Your task to perform on an android device: Check the news Image 0: 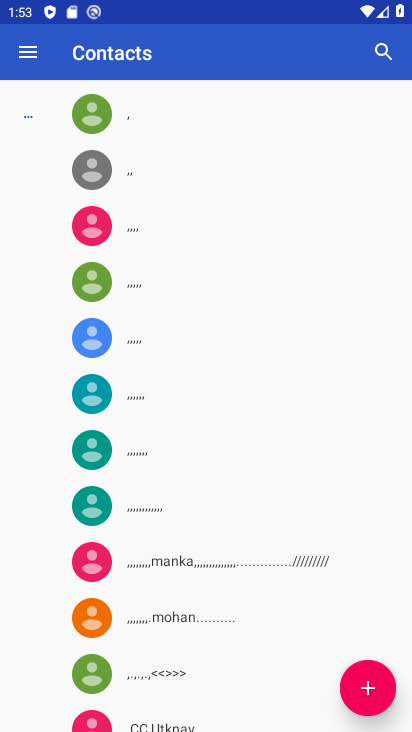
Step 0: press home button
Your task to perform on an android device: Check the news Image 1: 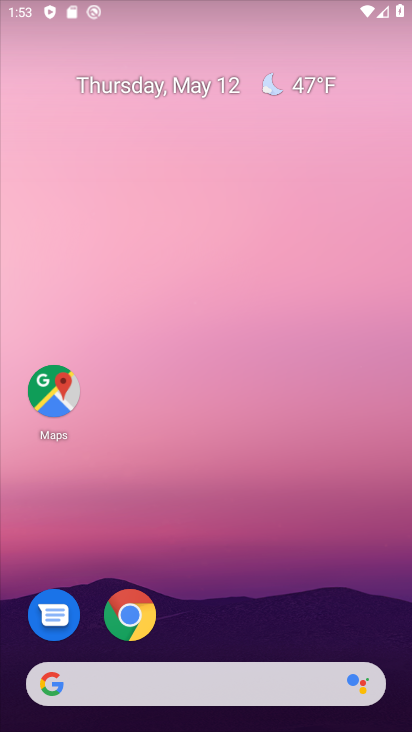
Step 1: drag from (217, 621) to (219, 89)
Your task to perform on an android device: Check the news Image 2: 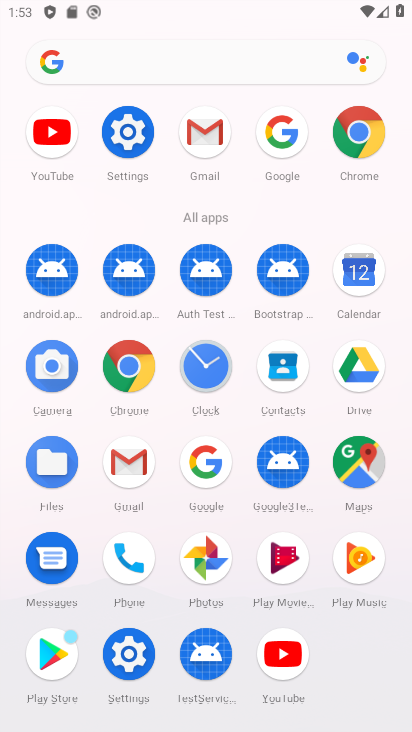
Step 2: click (280, 127)
Your task to perform on an android device: Check the news Image 3: 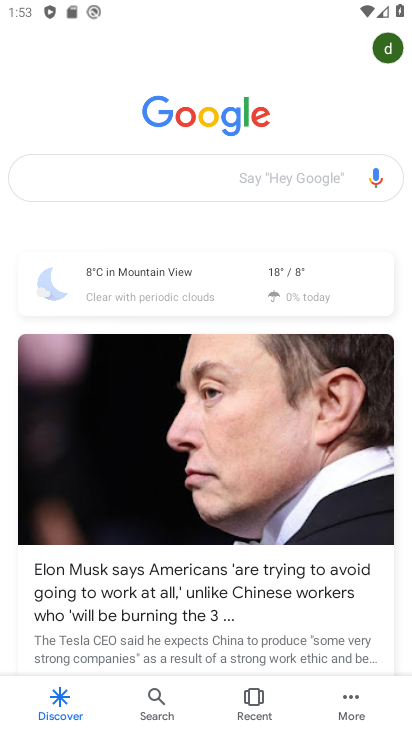
Step 3: click (167, 186)
Your task to perform on an android device: Check the news Image 4: 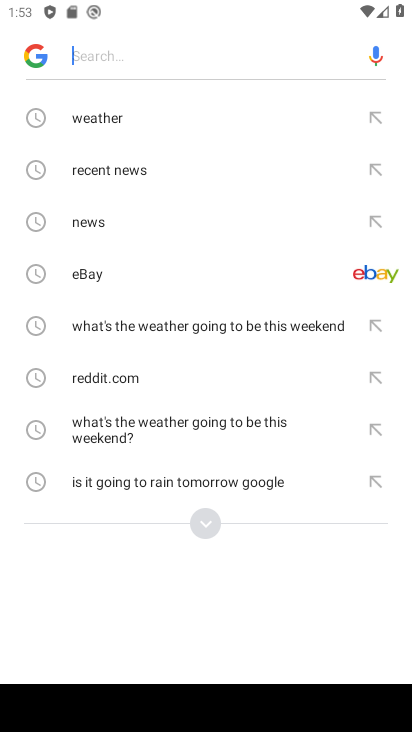
Step 4: click (101, 222)
Your task to perform on an android device: Check the news Image 5: 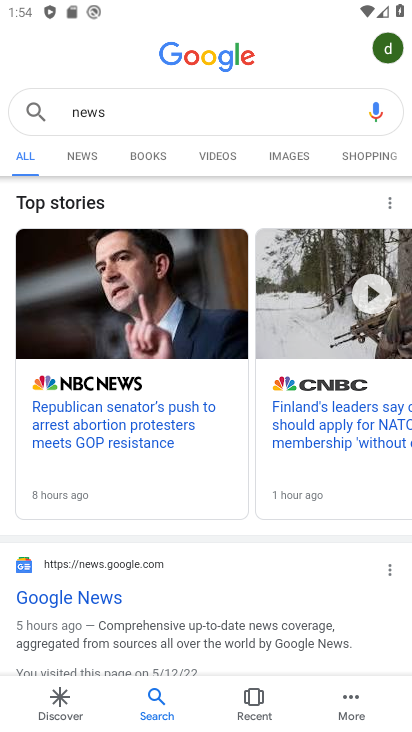
Step 5: task complete